Your task to perform on an android device: Open Youtube and go to "Your channel" Image 0: 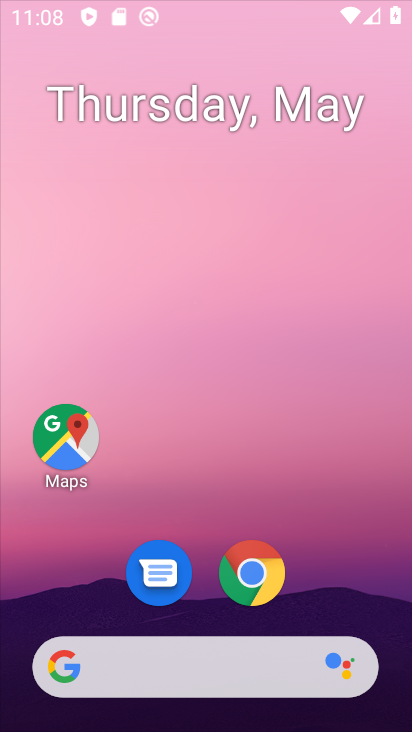
Step 0: click (264, 575)
Your task to perform on an android device: Open Youtube and go to "Your channel" Image 1: 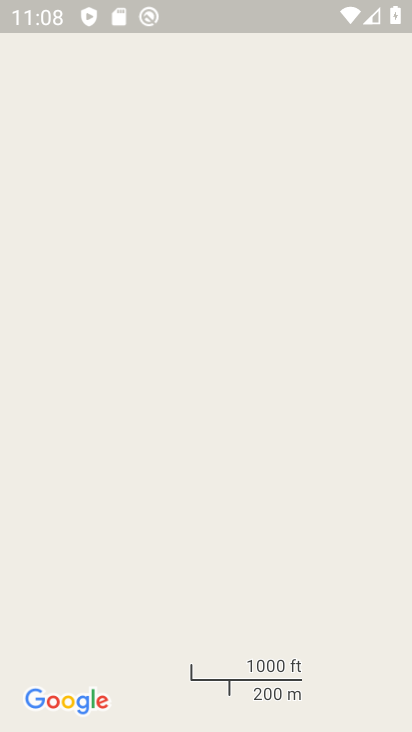
Step 1: press home button
Your task to perform on an android device: Open Youtube and go to "Your channel" Image 2: 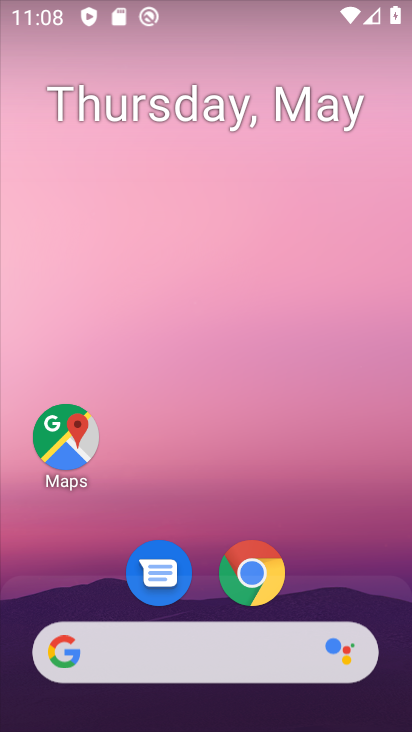
Step 2: drag from (79, 642) to (274, 112)
Your task to perform on an android device: Open Youtube and go to "Your channel" Image 3: 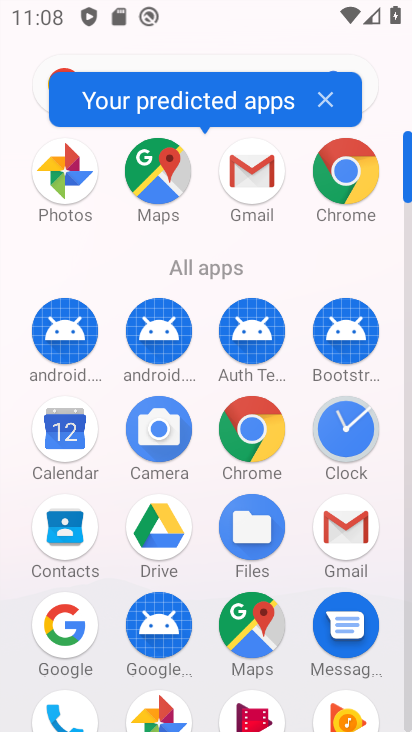
Step 3: drag from (269, 628) to (395, 254)
Your task to perform on an android device: Open Youtube and go to "Your channel" Image 4: 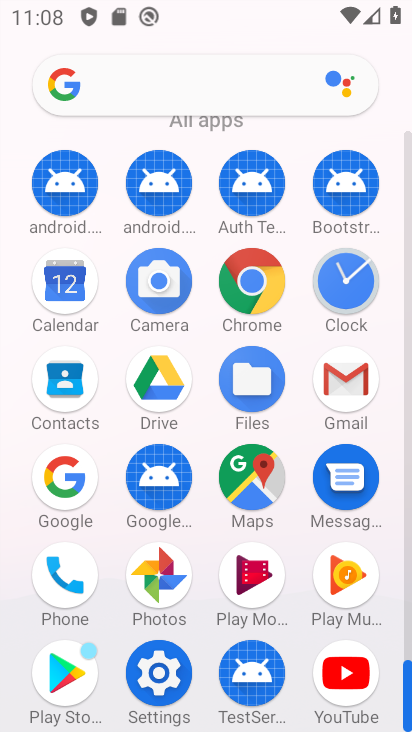
Step 4: click (387, 661)
Your task to perform on an android device: Open Youtube and go to "Your channel" Image 5: 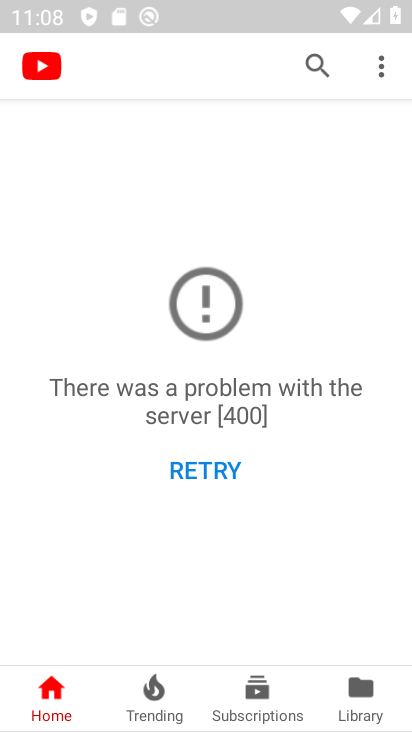
Step 5: click (367, 697)
Your task to perform on an android device: Open Youtube and go to "Your channel" Image 6: 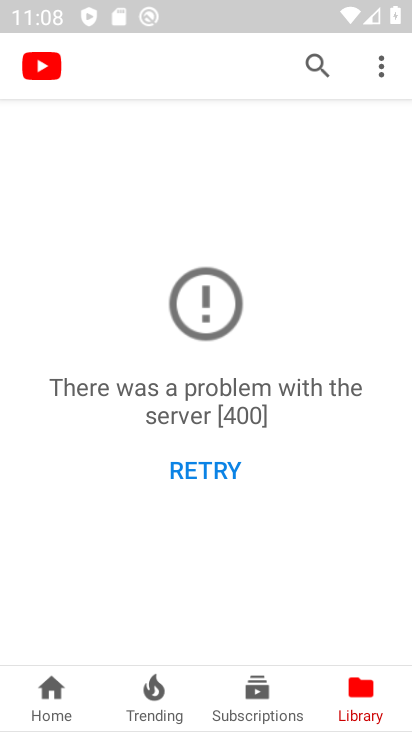
Step 6: task complete